Your task to perform on an android device: turn off location history Image 0: 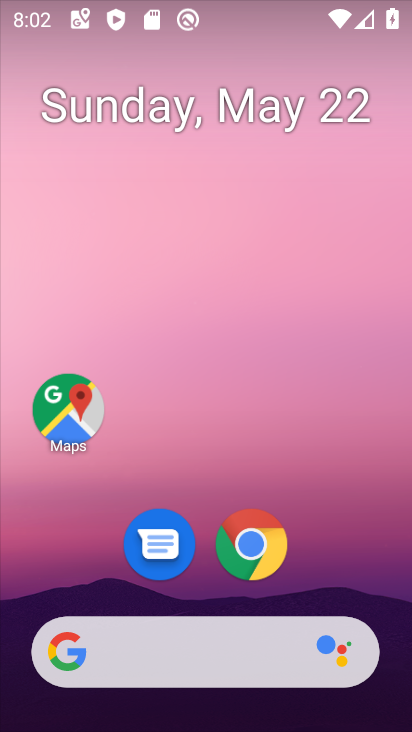
Step 0: drag from (333, 600) to (366, 204)
Your task to perform on an android device: turn off location history Image 1: 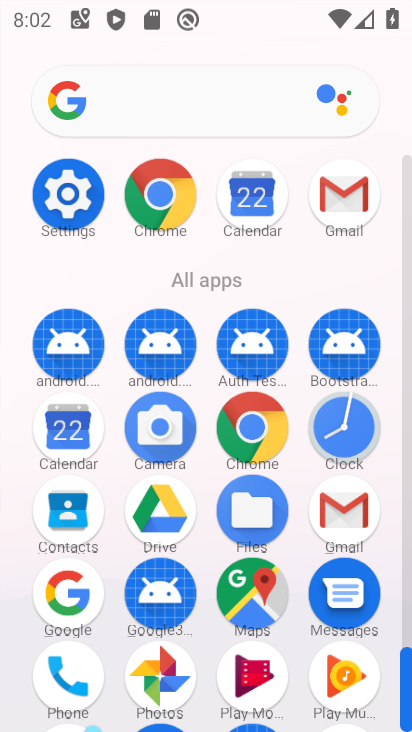
Step 1: click (80, 196)
Your task to perform on an android device: turn off location history Image 2: 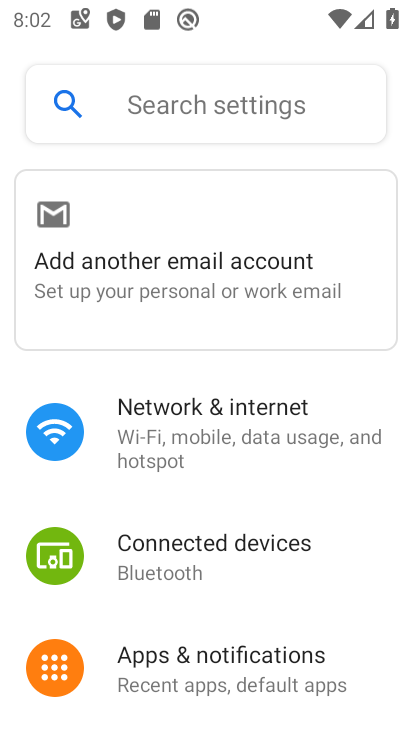
Step 2: drag from (245, 604) to (276, 118)
Your task to perform on an android device: turn off location history Image 3: 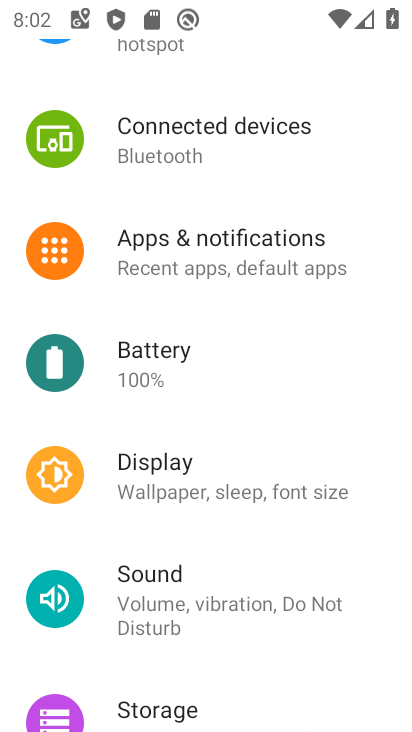
Step 3: drag from (230, 584) to (288, 168)
Your task to perform on an android device: turn off location history Image 4: 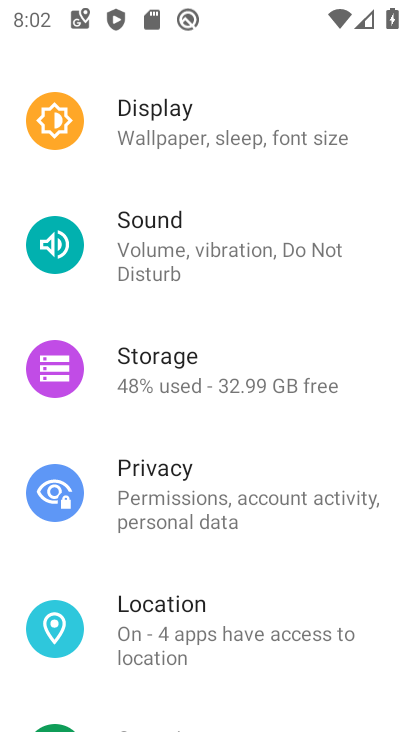
Step 4: drag from (172, 557) to (194, 308)
Your task to perform on an android device: turn off location history Image 5: 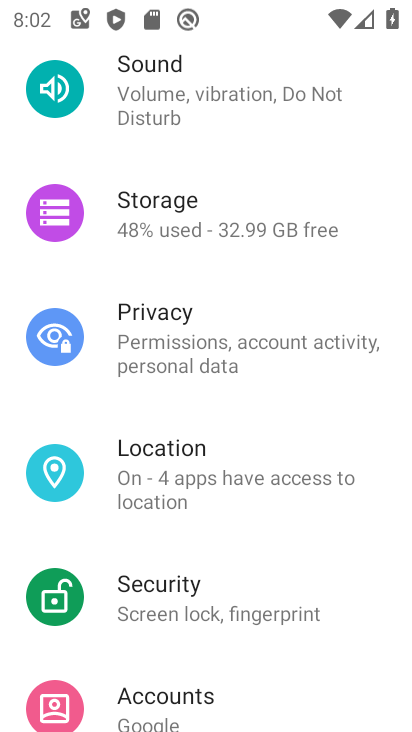
Step 5: click (148, 468)
Your task to perform on an android device: turn off location history Image 6: 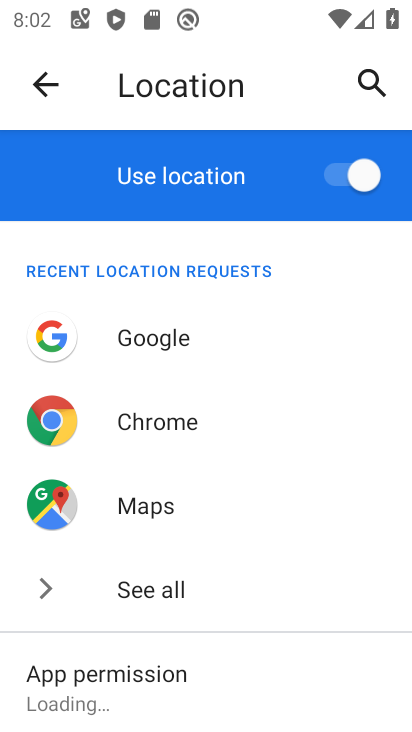
Step 6: drag from (231, 599) to (290, 191)
Your task to perform on an android device: turn off location history Image 7: 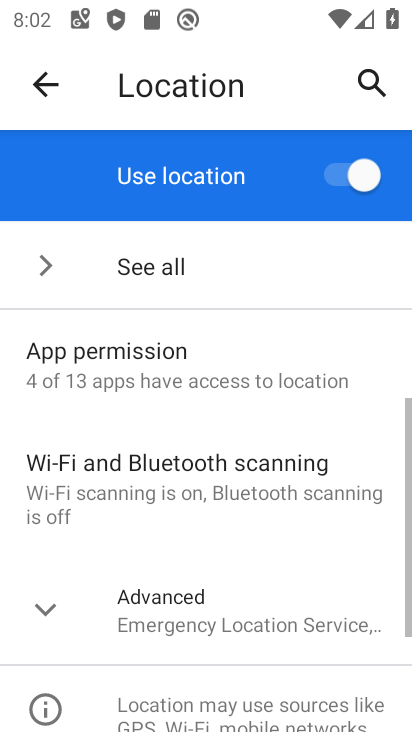
Step 7: click (229, 592)
Your task to perform on an android device: turn off location history Image 8: 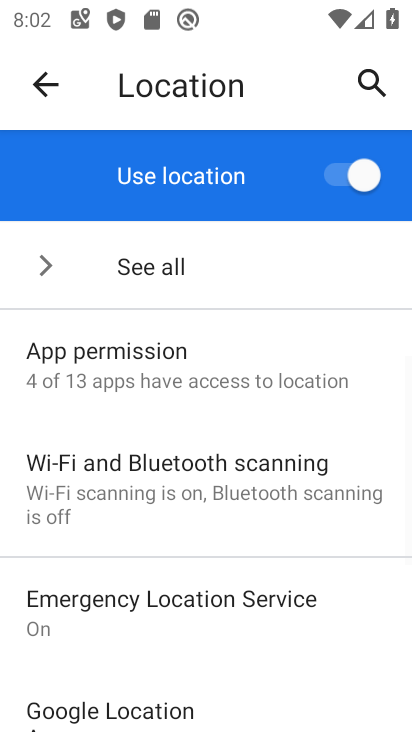
Step 8: drag from (317, 660) to (409, 224)
Your task to perform on an android device: turn off location history Image 9: 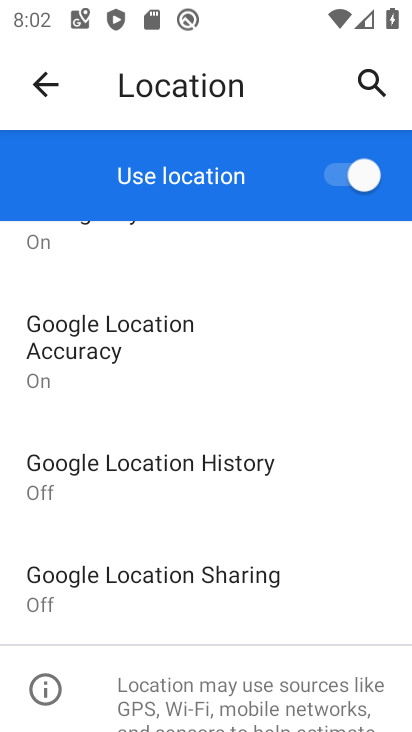
Step 9: click (222, 462)
Your task to perform on an android device: turn off location history Image 10: 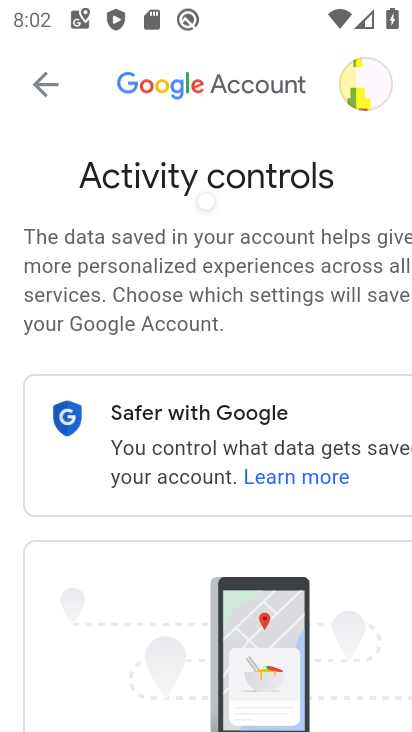
Step 10: drag from (246, 655) to (252, 359)
Your task to perform on an android device: turn off location history Image 11: 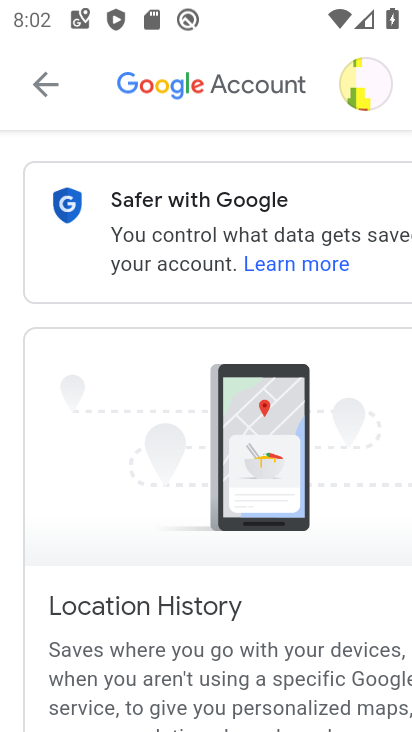
Step 11: drag from (238, 595) to (241, 377)
Your task to perform on an android device: turn off location history Image 12: 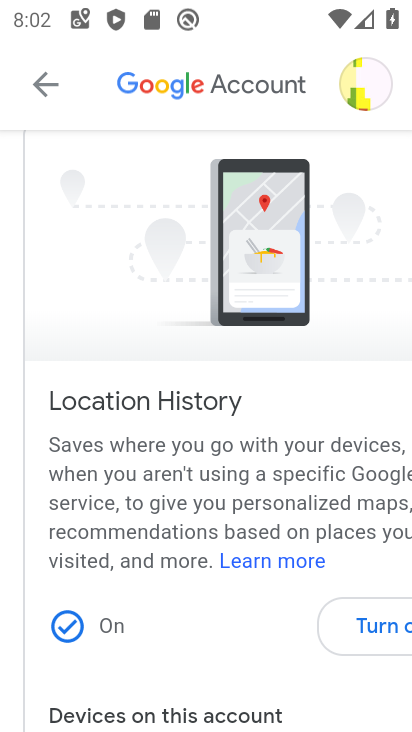
Step 12: drag from (230, 585) to (240, 503)
Your task to perform on an android device: turn off location history Image 13: 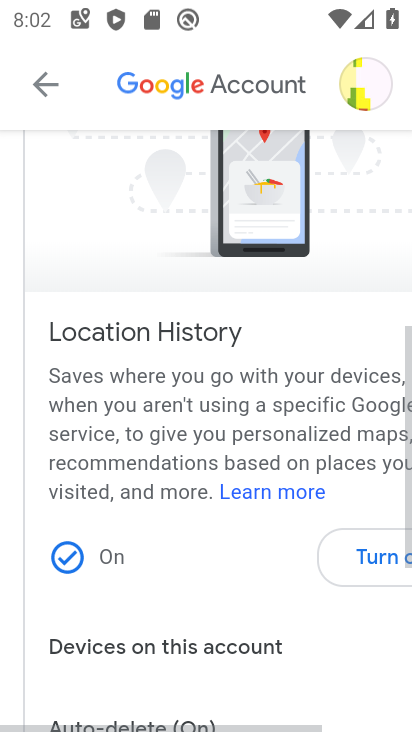
Step 13: click (243, 465)
Your task to perform on an android device: turn off location history Image 14: 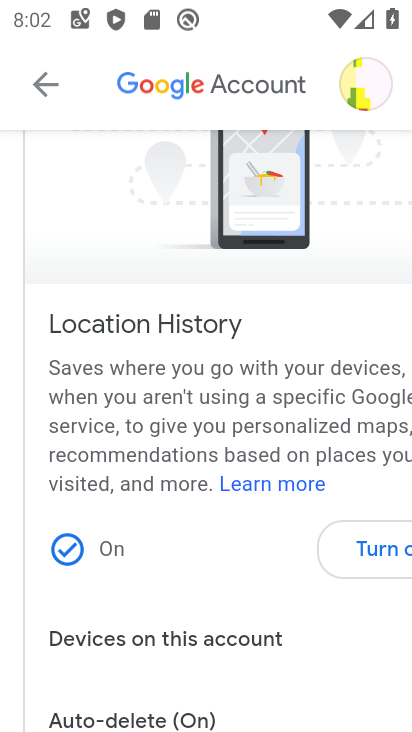
Step 14: click (369, 551)
Your task to perform on an android device: turn off location history Image 15: 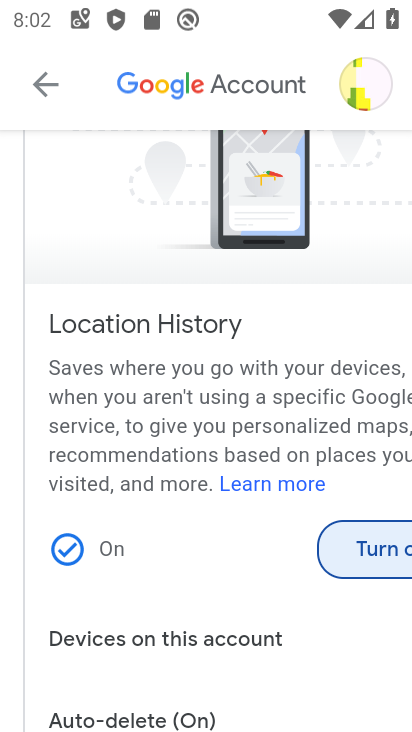
Step 15: click (366, 543)
Your task to perform on an android device: turn off location history Image 16: 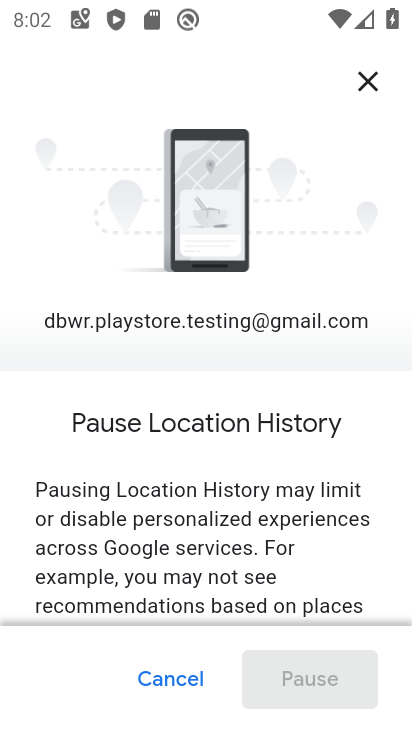
Step 16: drag from (317, 566) to (361, 269)
Your task to perform on an android device: turn off location history Image 17: 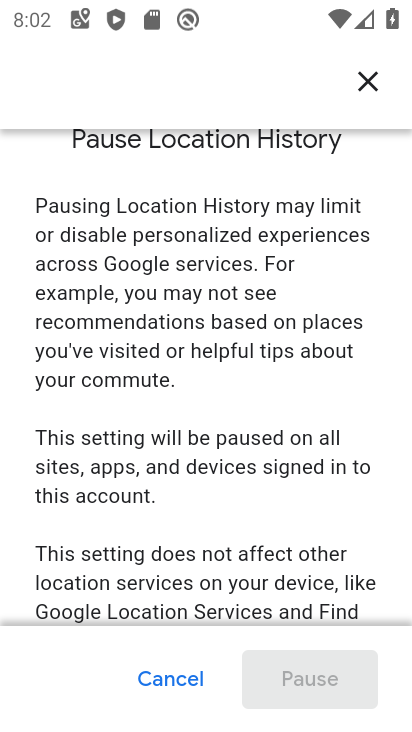
Step 17: drag from (331, 618) to (342, 273)
Your task to perform on an android device: turn off location history Image 18: 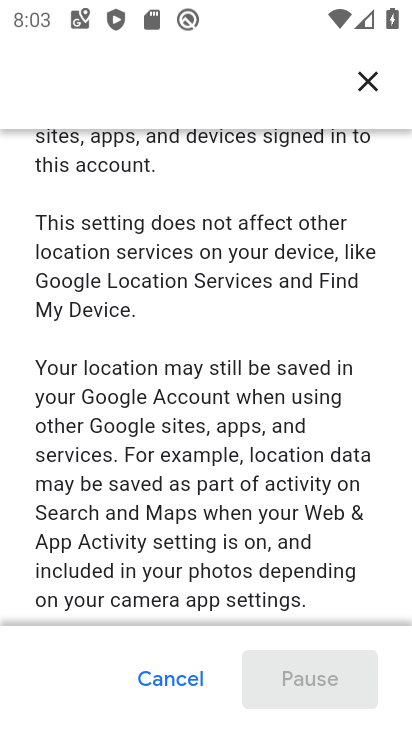
Step 18: click (349, 257)
Your task to perform on an android device: turn off location history Image 19: 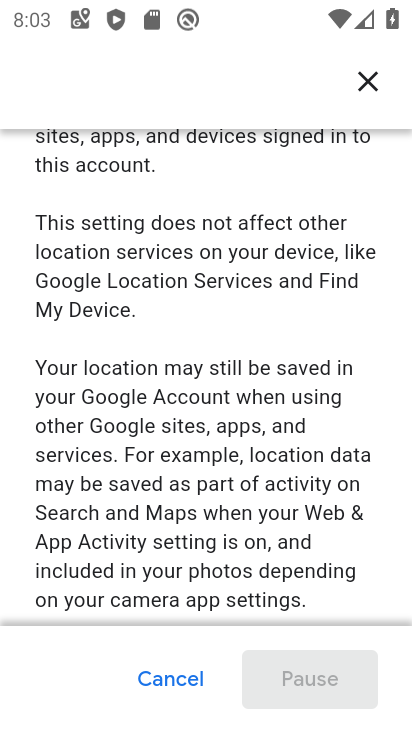
Step 19: drag from (279, 559) to (323, 265)
Your task to perform on an android device: turn off location history Image 20: 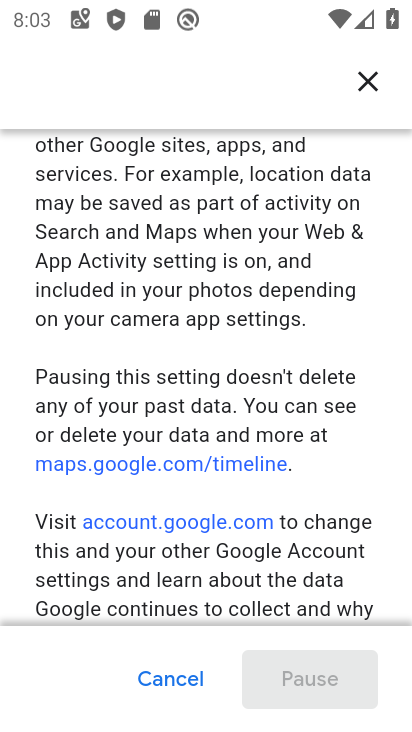
Step 20: drag from (216, 635) to (297, 298)
Your task to perform on an android device: turn off location history Image 21: 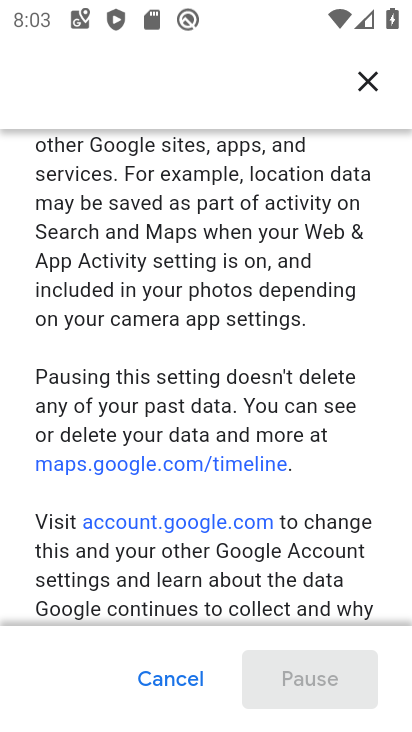
Step 21: drag from (287, 561) to (312, 310)
Your task to perform on an android device: turn off location history Image 22: 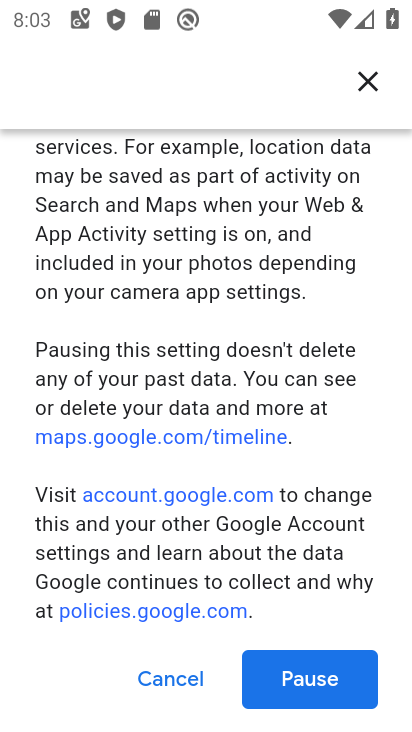
Step 22: click (299, 692)
Your task to perform on an android device: turn off location history Image 23: 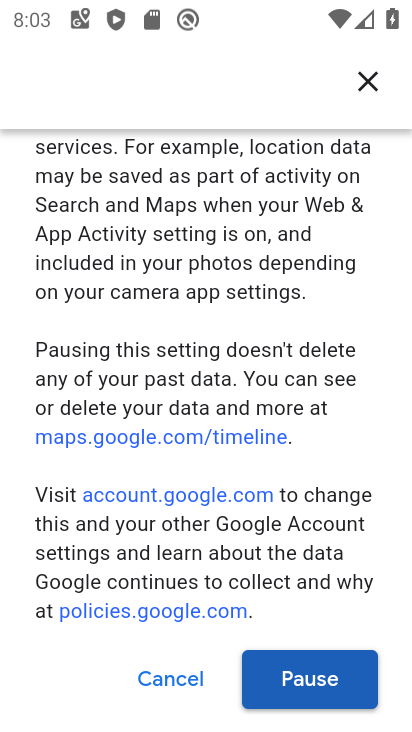
Step 23: click (286, 687)
Your task to perform on an android device: turn off location history Image 24: 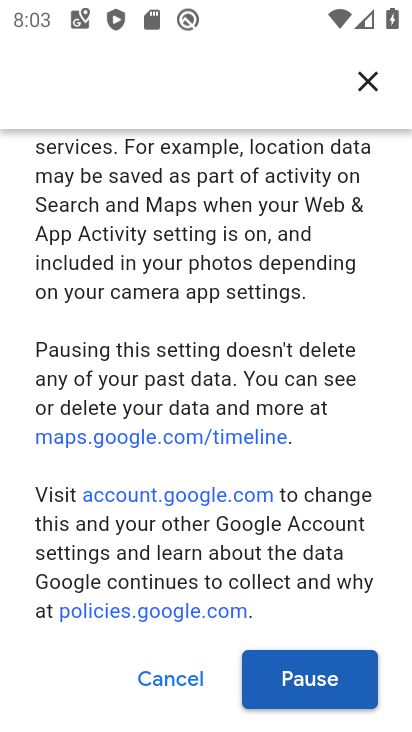
Step 24: click (281, 679)
Your task to perform on an android device: turn off location history Image 25: 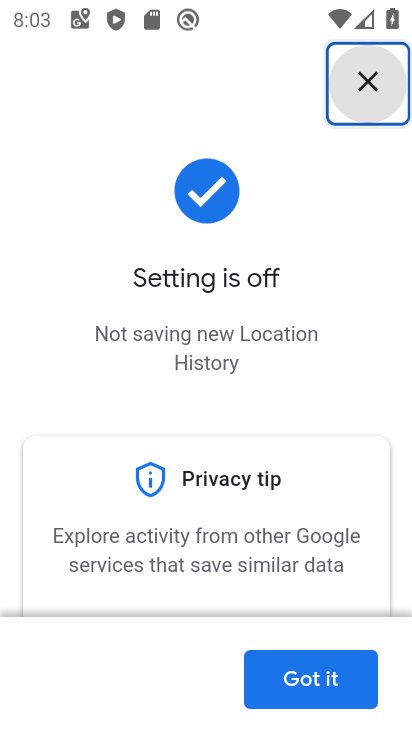
Step 25: task complete